Your task to perform on an android device: Is it going to rain this weekend? Image 0: 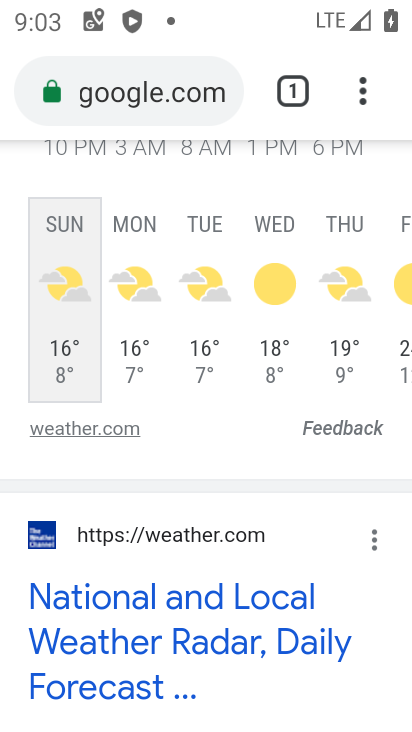
Step 0: press home button
Your task to perform on an android device: Is it going to rain this weekend? Image 1: 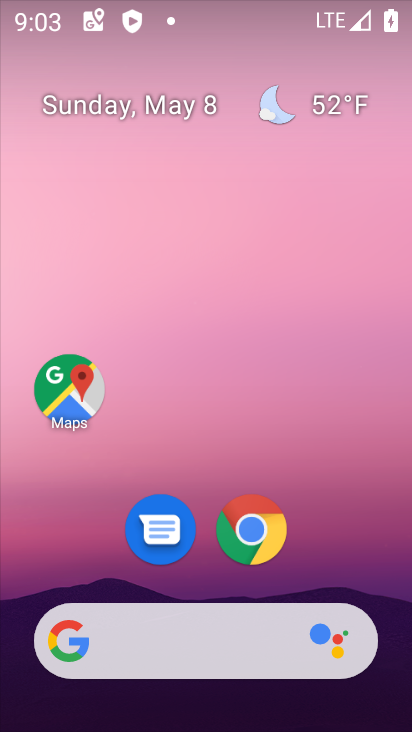
Step 1: drag from (363, 559) to (373, 111)
Your task to perform on an android device: Is it going to rain this weekend? Image 2: 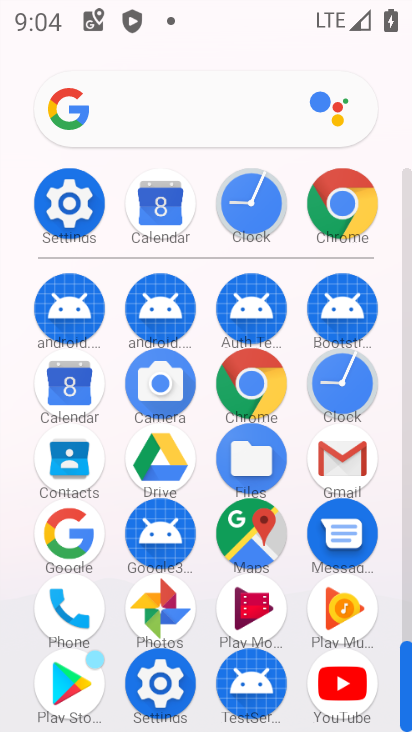
Step 2: click (76, 392)
Your task to perform on an android device: Is it going to rain this weekend? Image 3: 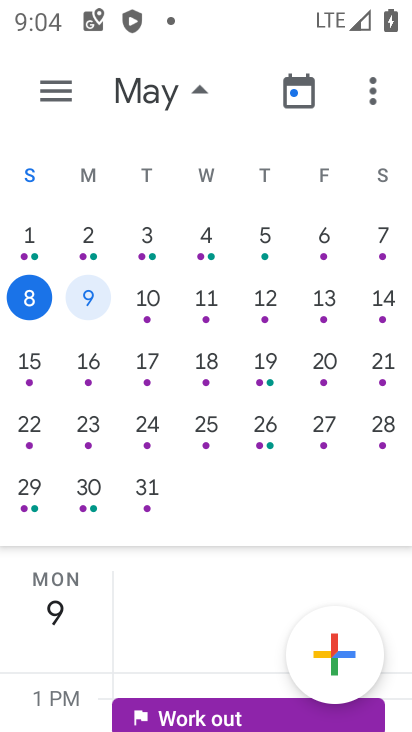
Step 3: drag from (223, 540) to (253, 334)
Your task to perform on an android device: Is it going to rain this weekend? Image 4: 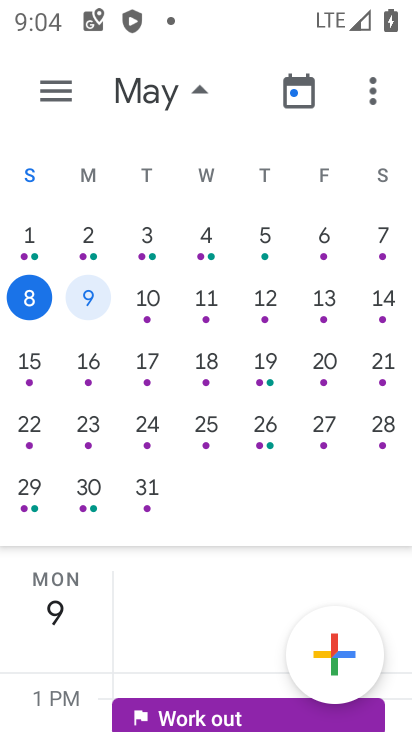
Step 4: drag from (209, 620) to (226, 267)
Your task to perform on an android device: Is it going to rain this weekend? Image 5: 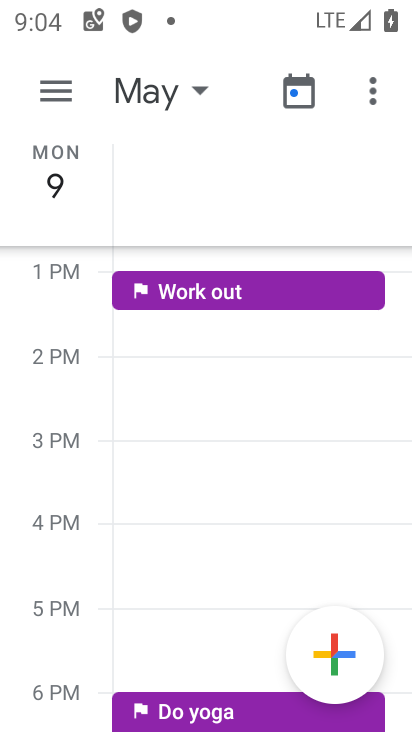
Step 5: click (143, 93)
Your task to perform on an android device: Is it going to rain this weekend? Image 6: 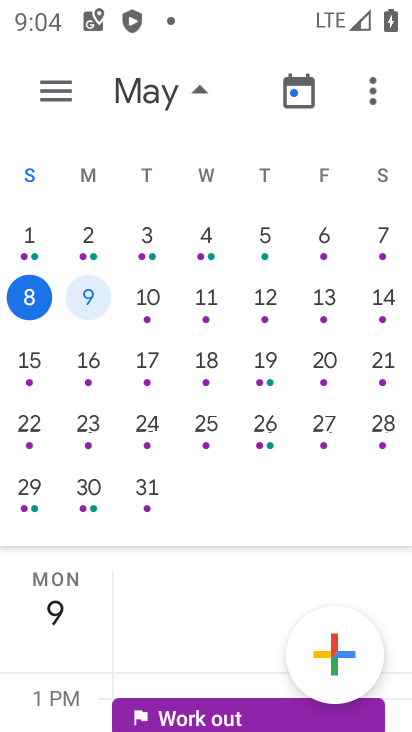
Step 6: task complete